Your task to perform on an android device: set the stopwatch Image 0: 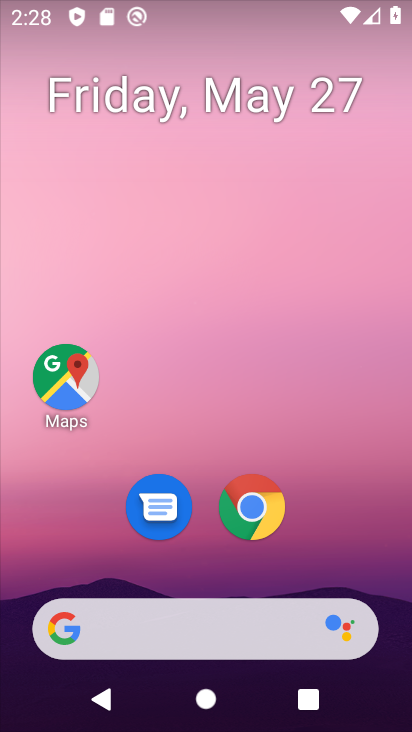
Step 0: drag from (144, 560) to (207, 134)
Your task to perform on an android device: set the stopwatch Image 1: 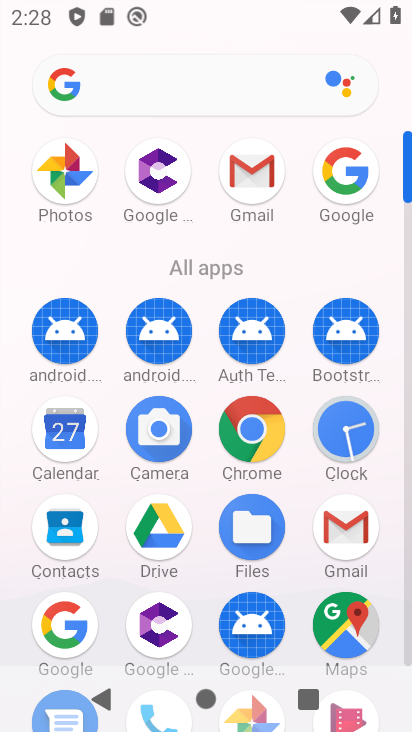
Step 1: click (358, 437)
Your task to perform on an android device: set the stopwatch Image 2: 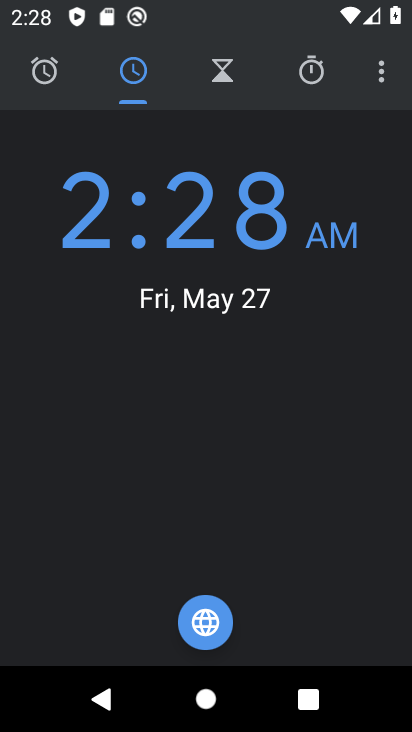
Step 2: click (309, 86)
Your task to perform on an android device: set the stopwatch Image 3: 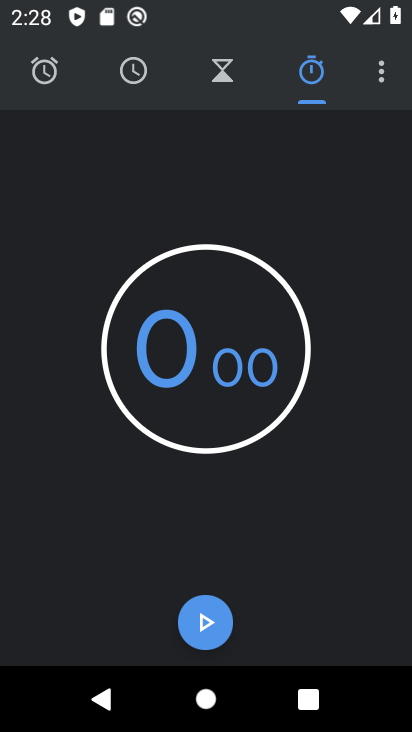
Step 3: click (196, 630)
Your task to perform on an android device: set the stopwatch Image 4: 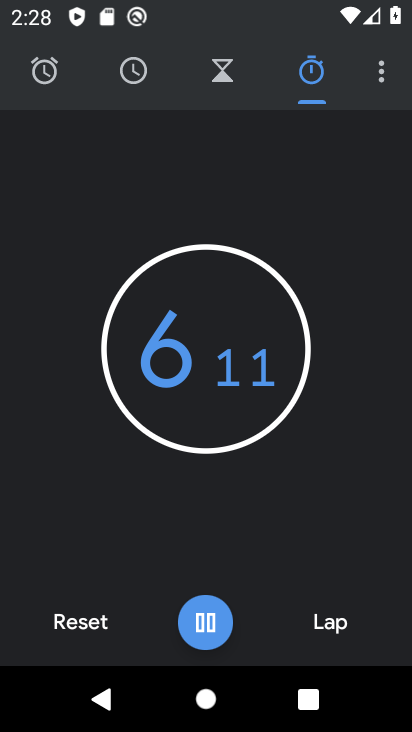
Step 4: click (203, 617)
Your task to perform on an android device: set the stopwatch Image 5: 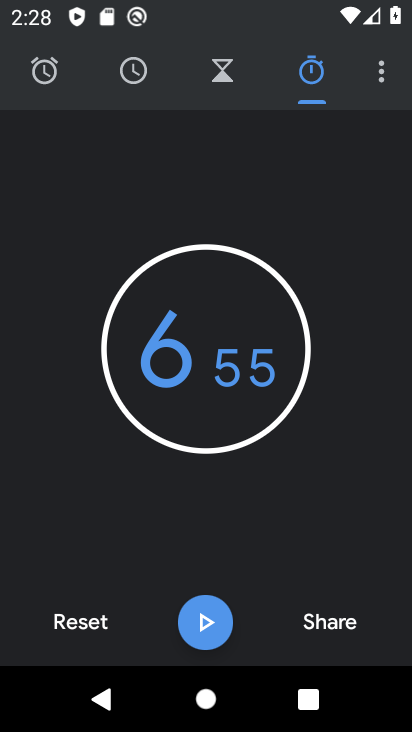
Step 5: task complete